Your task to perform on an android device: Open Youtube and go to the subscriptions tab Image 0: 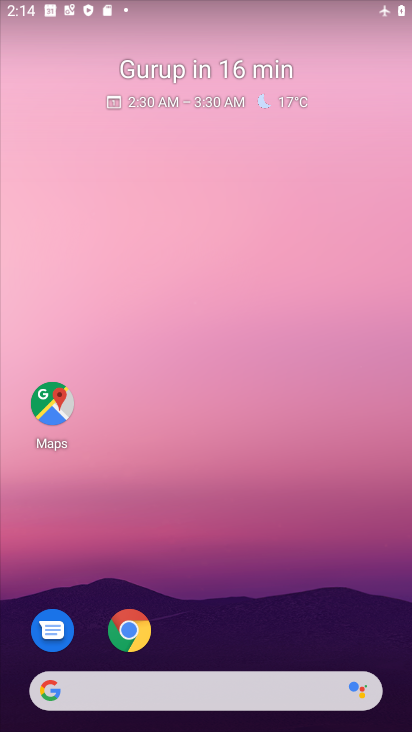
Step 0: drag from (232, 616) to (300, 70)
Your task to perform on an android device: Open Youtube and go to the subscriptions tab Image 1: 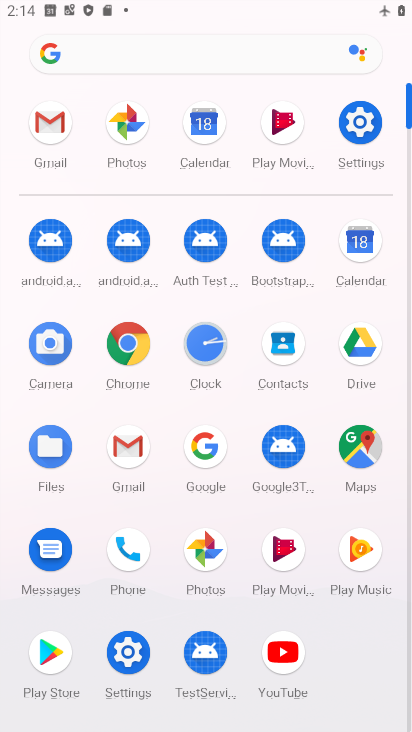
Step 1: drag from (236, 474) to (248, 350)
Your task to perform on an android device: Open Youtube and go to the subscriptions tab Image 2: 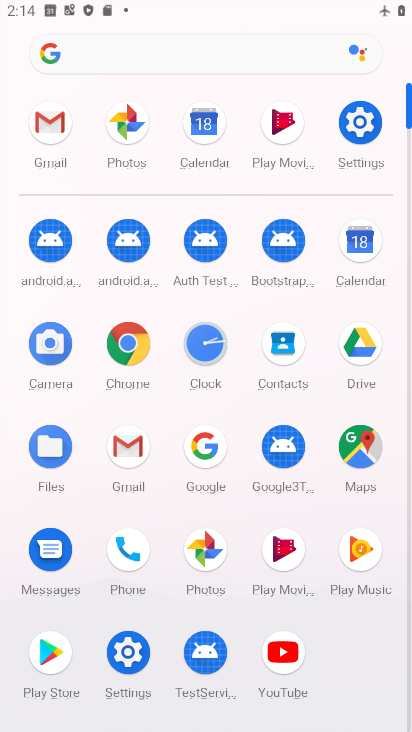
Step 2: click (284, 650)
Your task to perform on an android device: Open Youtube and go to the subscriptions tab Image 3: 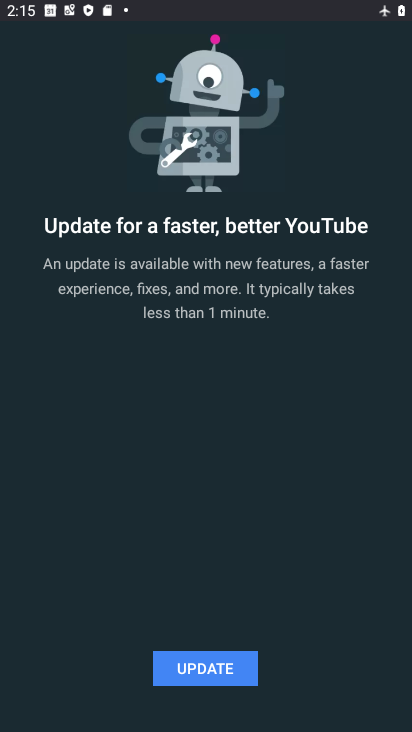
Step 3: click (241, 677)
Your task to perform on an android device: Open Youtube and go to the subscriptions tab Image 4: 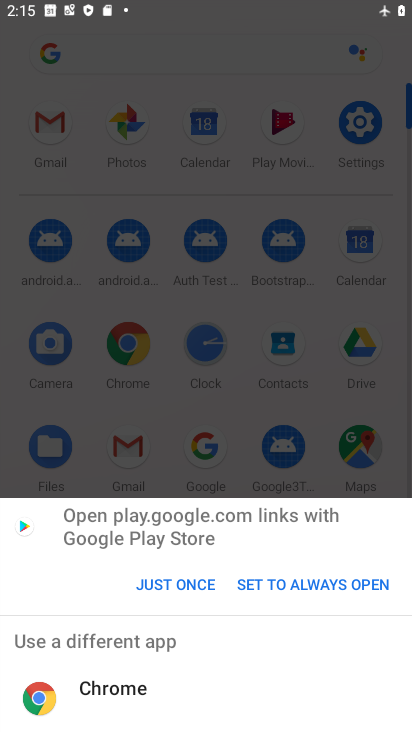
Step 4: click (161, 584)
Your task to perform on an android device: Open Youtube and go to the subscriptions tab Image 5: 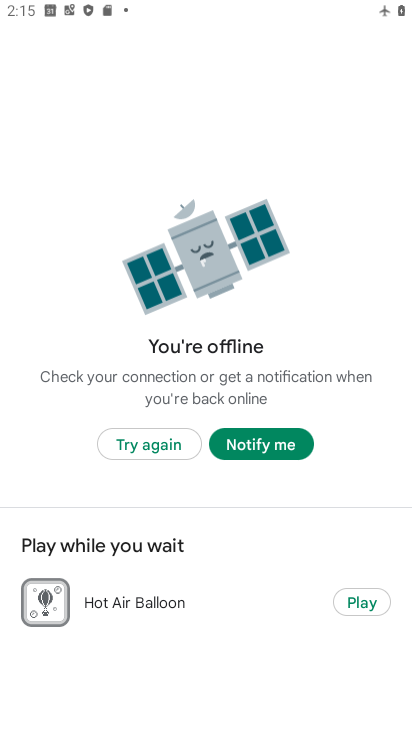
Step 5: click (167, 442)
Your task to perform on an android device: Open Youtube and go to the subscriptions tab Image 6: 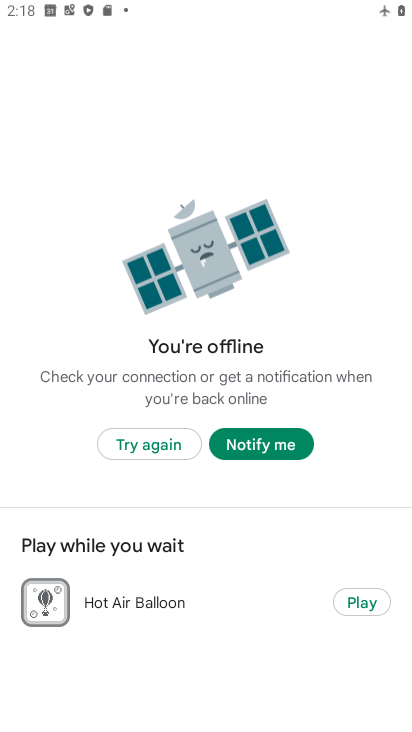
Step 6: task complete